Your task to perform on an android device: open app "Roku - Official Remote Control" (install if not already installed) Image 0: 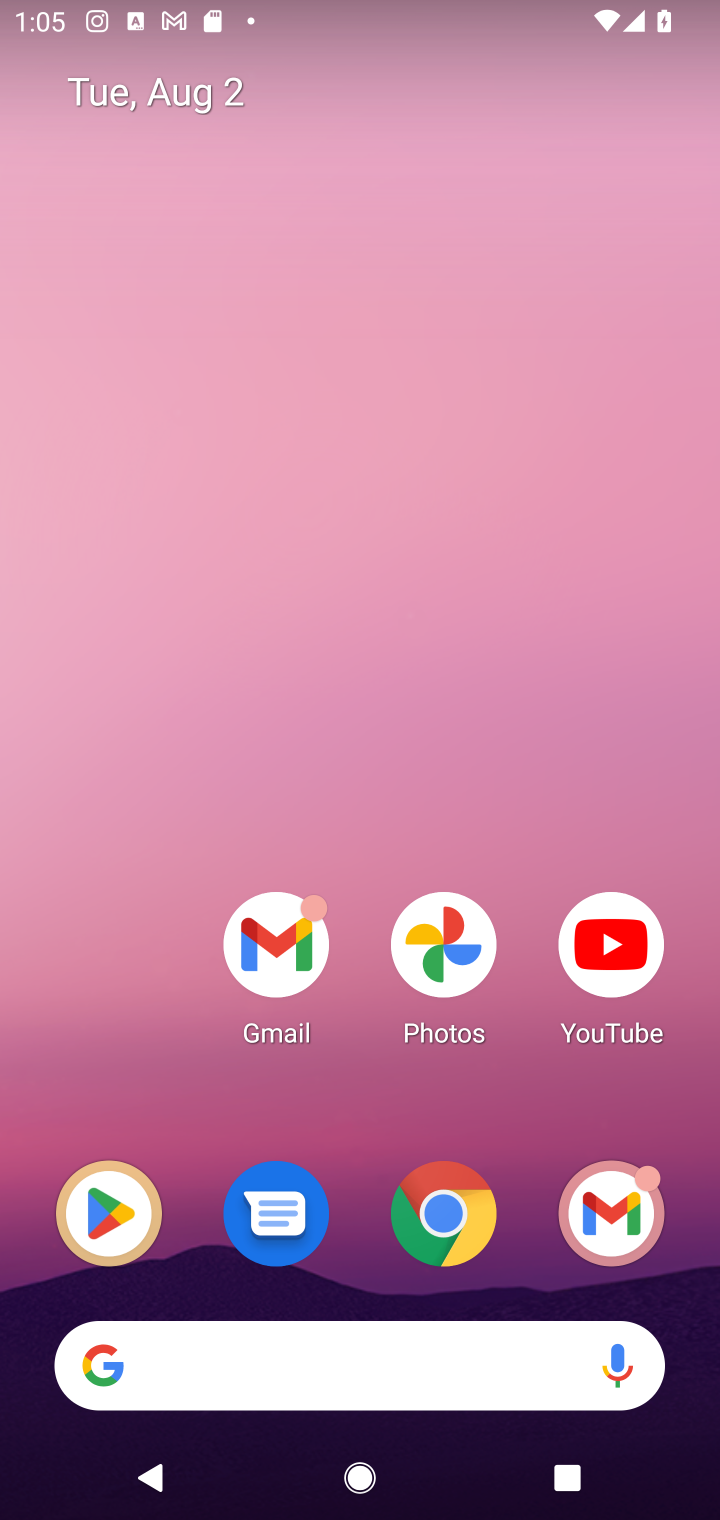
Step 0: click (94, 1236)
Your task to perform on an android device: open app "Roku - Official Remote Control" (install if not already installed) Image 1: 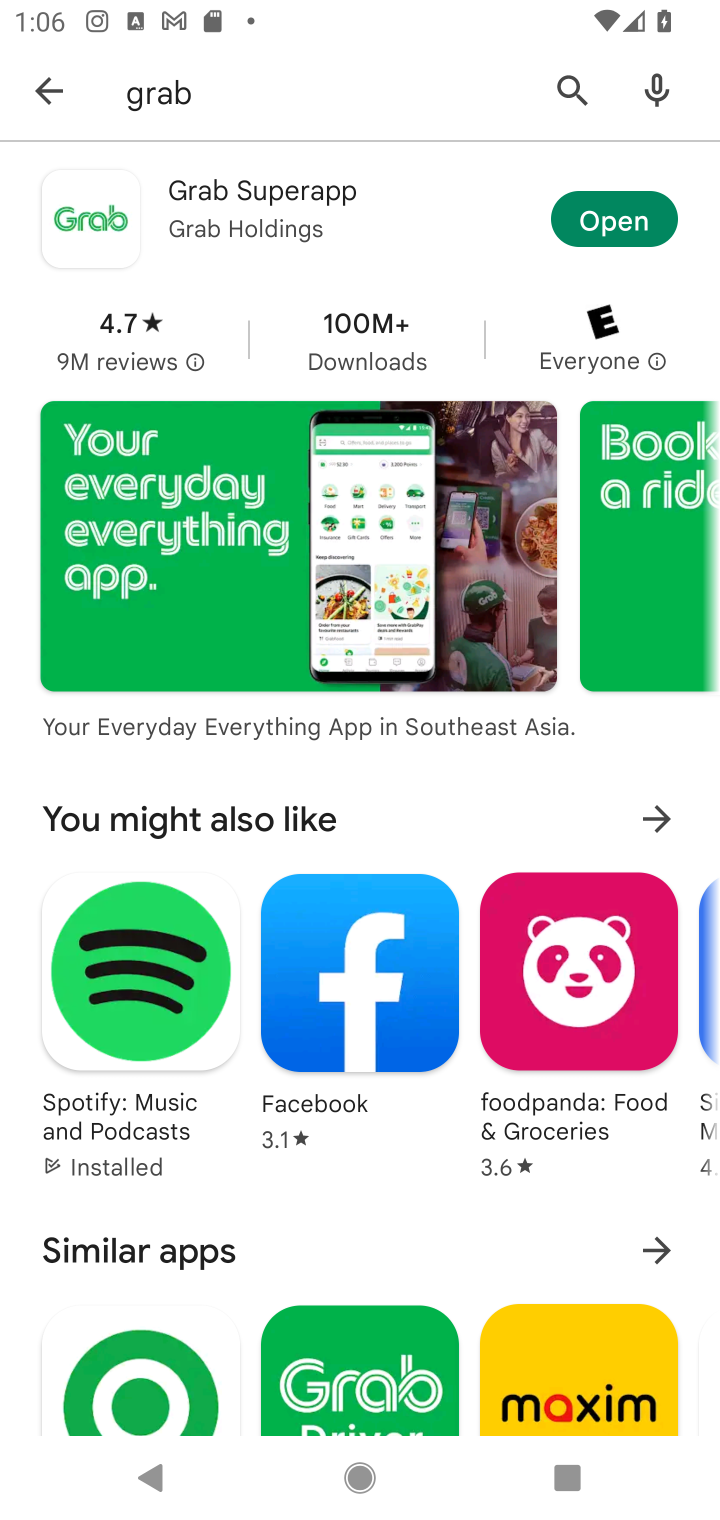
Step 1: click (53, 88)
Your task to perform on an android device: open app "Roku - Official Remote Control" (install if not already installed) Image 2: 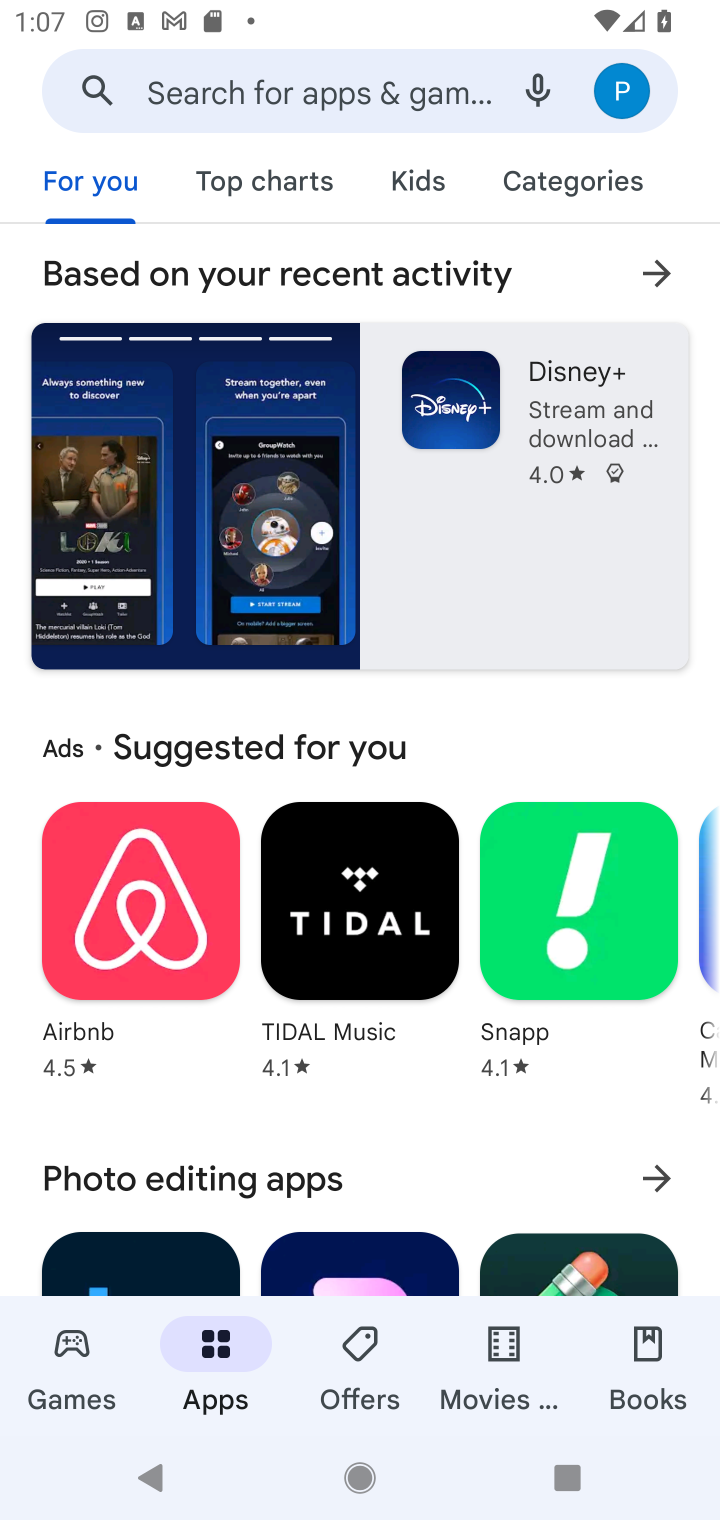
Step 2: click (269, 82)
Your task to perform on an android device: open app "Roku - Official Remote Control" (install if not already installed) Image 3: 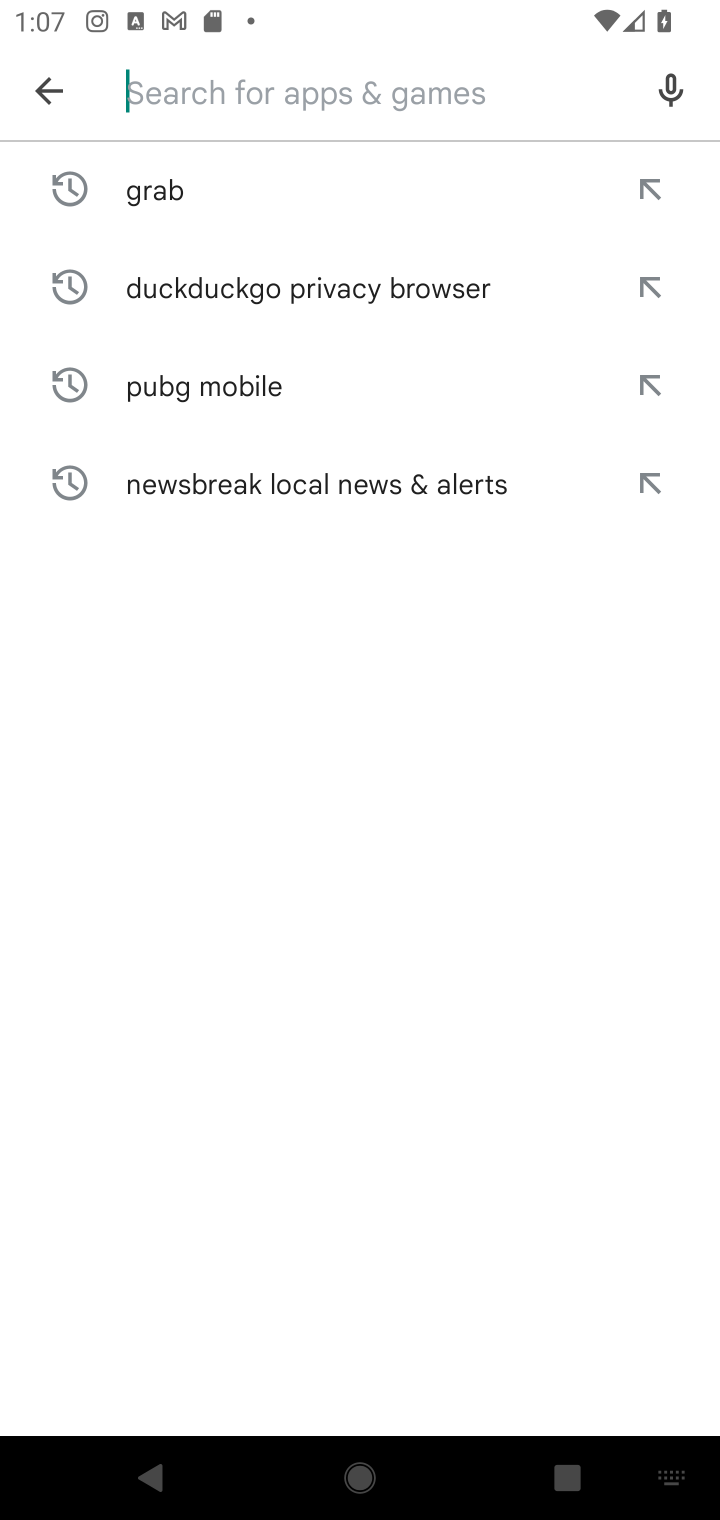
Step 3: type "Roku - Official Remote Control"
Your task to perform on an android device: open app "Roku - Official Remote Control" (install if not already installed) Image 4: 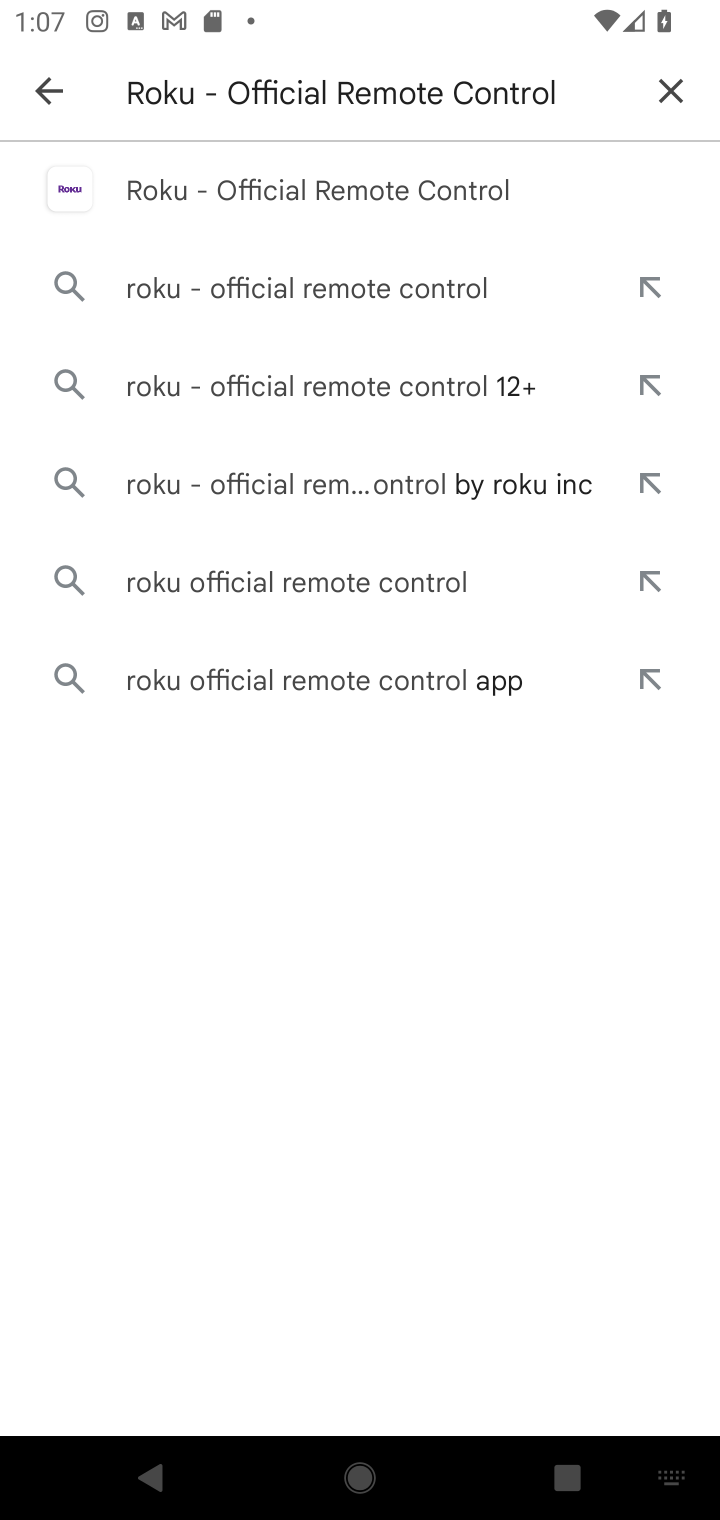
Step 4: click (361, 204)
Your task to perform on an android device: open app "Roku - Official Remote Control" (install if not already installed) Image 5: 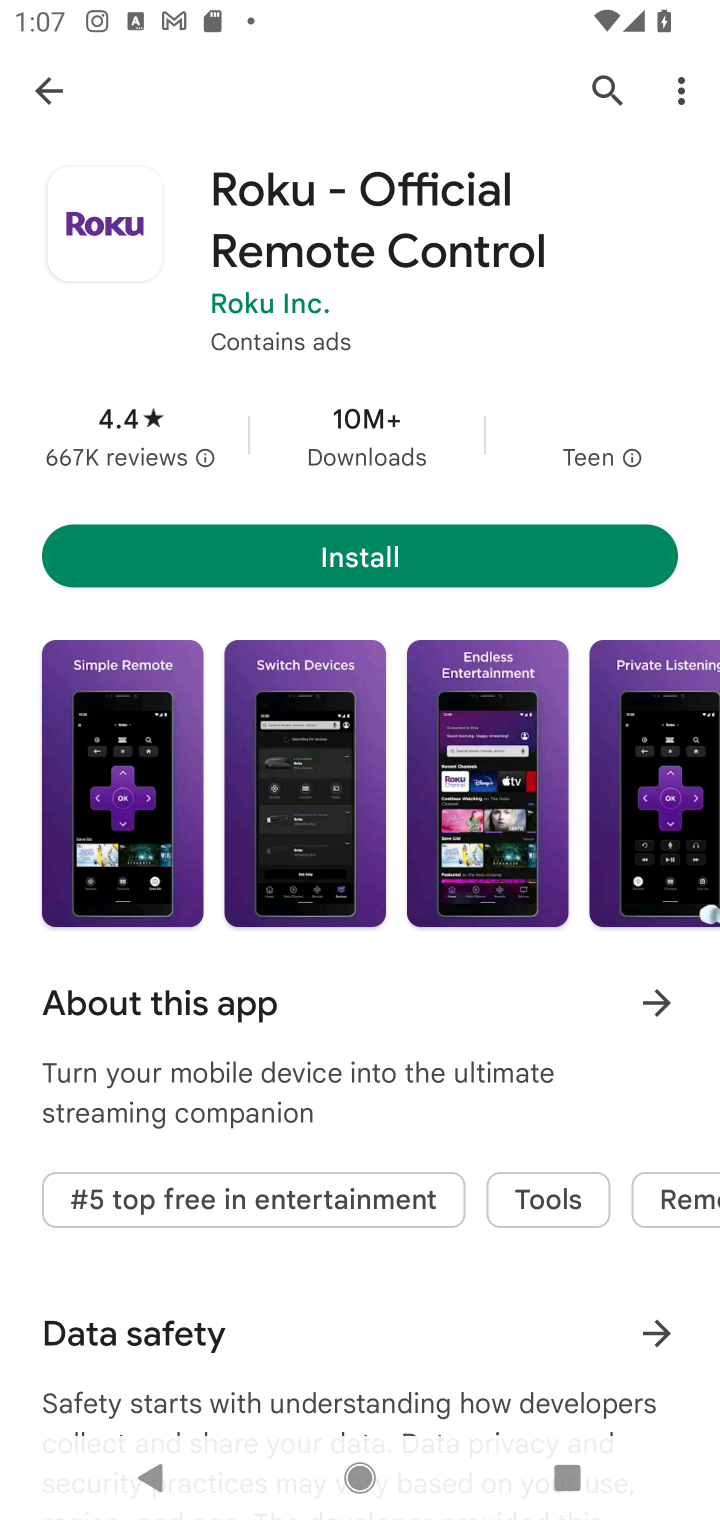
Step 5: click (333, 549)
Your task to perform on an android device: open app "Roku - Official Remote Control" (install if not already installed) Image 6: 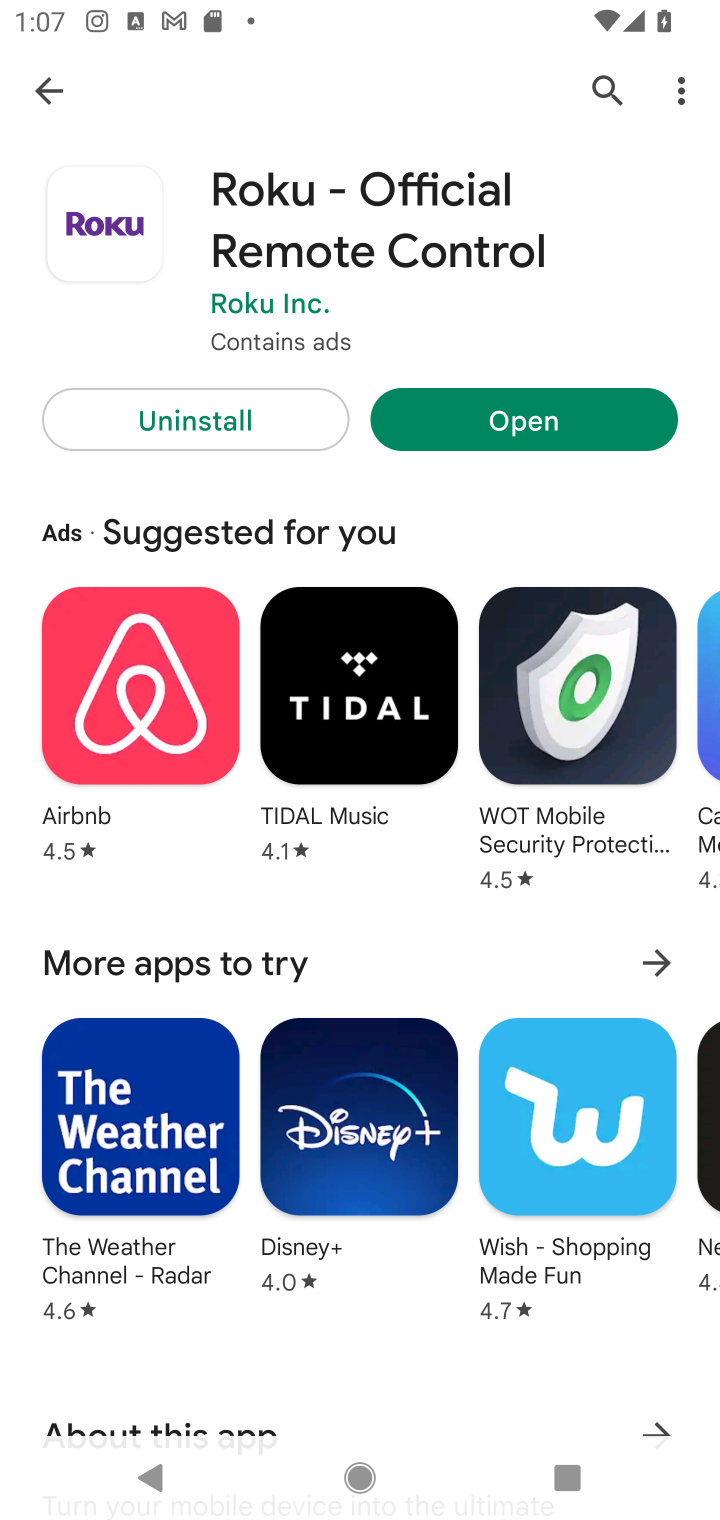
Step 6: click (535, 414)
Your task to perform on an android device: open app "Roku - Official Remote Control" (install if not already installed) Image 7: 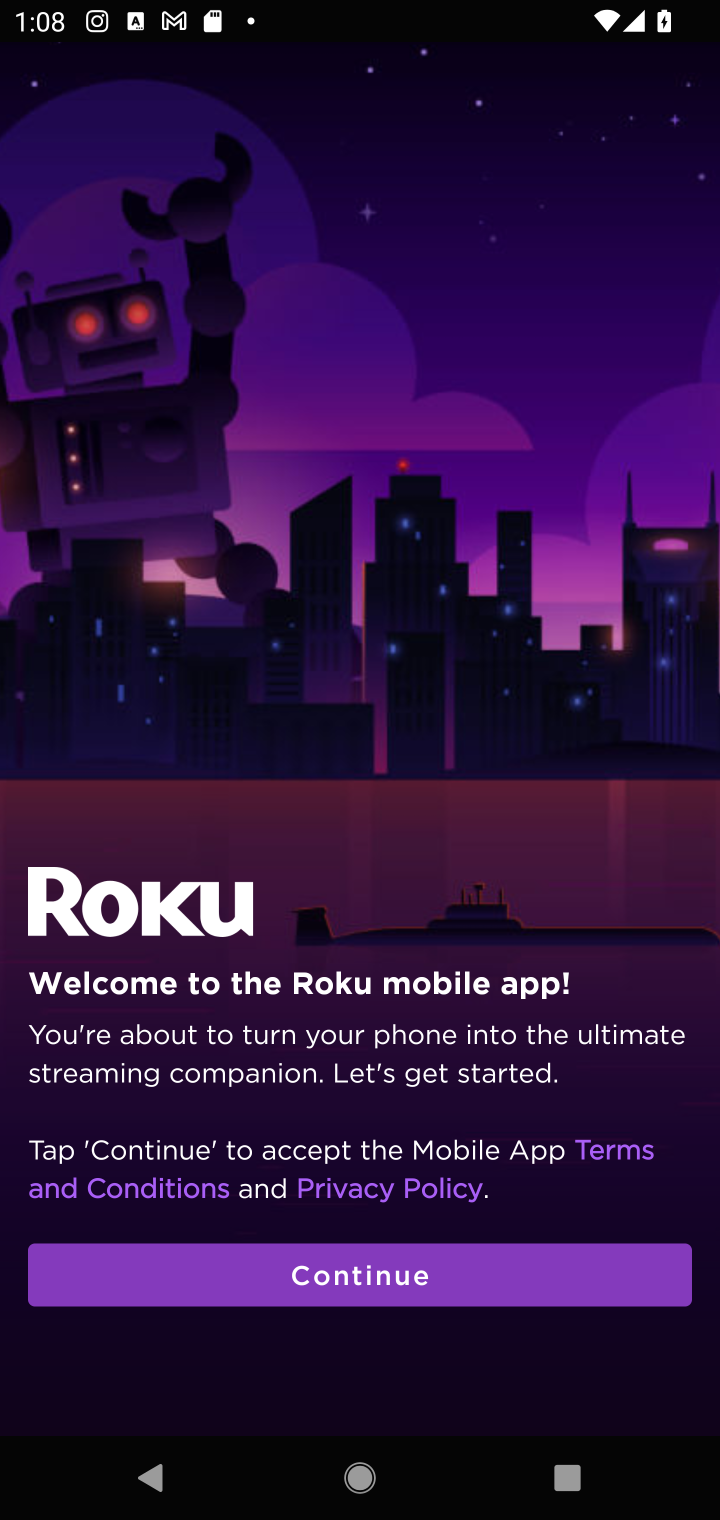
Step 7: task complete